Your task to perform on an android device: Open the stopwatch Image 0: 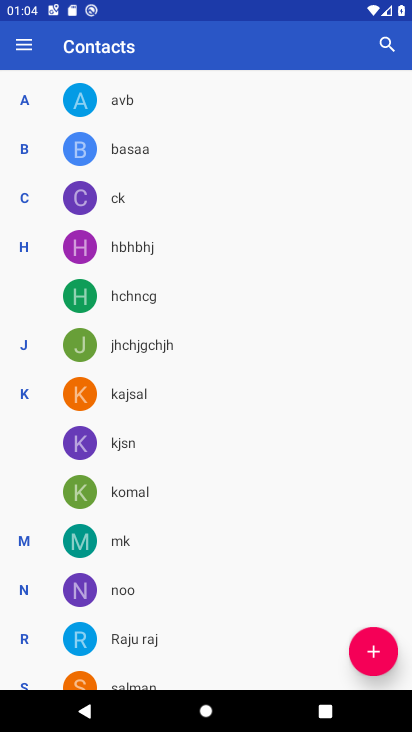
Step 0: press home button
Your task to perform on an android device: Open the stopwatch Image 1: 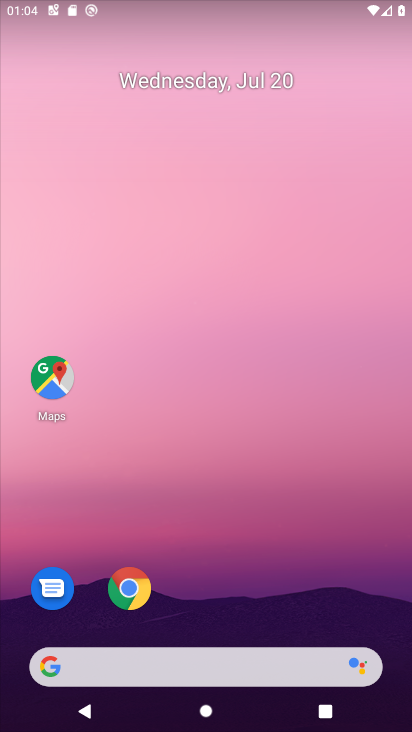
Step 1: drag from (259, 603) to (259, 198)
Your task to perform on an android device: Open the stopwatch Image 2: 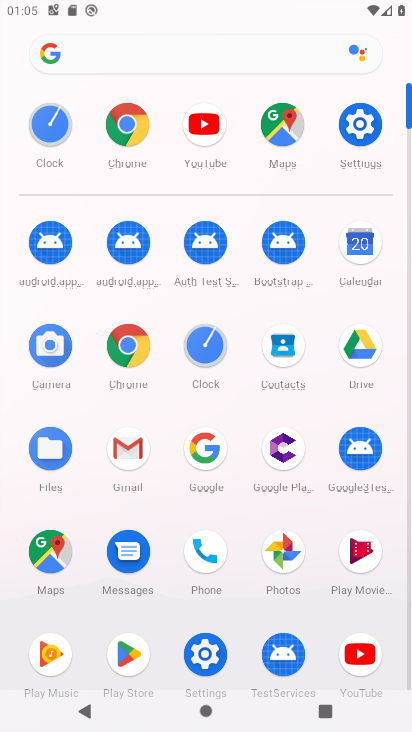
Step 2: click (205, 341)
Your task to perform on an android device: Open the stopwatch Image 3: 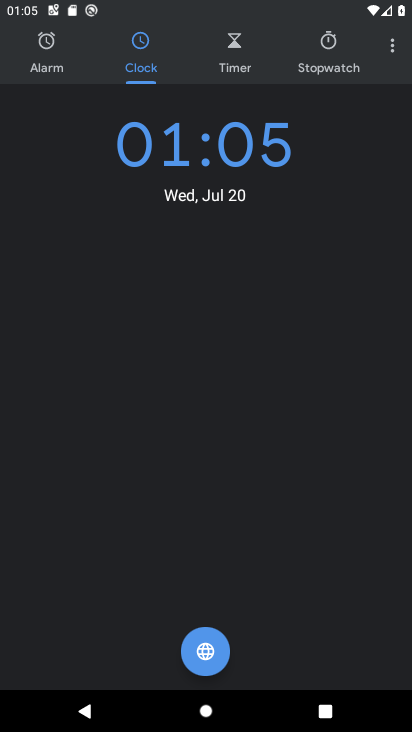
Step 3: click (341, 64)
Your task to perform on an android device: Open the stopwatch Image 4: 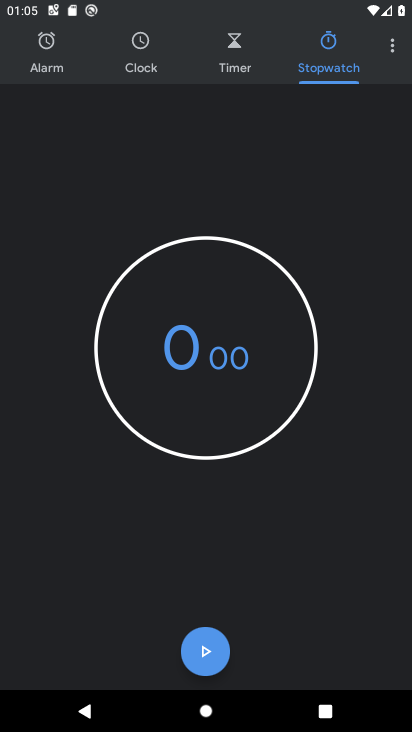
Step 4: task complete